Your task to perform on an android device: see sites visited before in the chrome app Image 0: 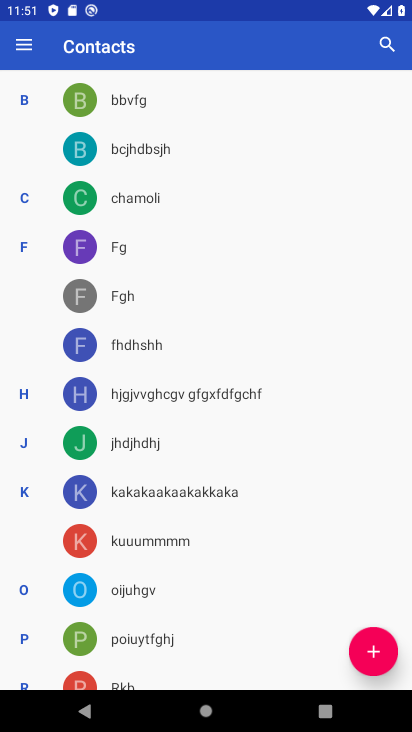
Step 0: press home button
Your task to perform on an android device: see sites visited before in the chrome app Image 1: 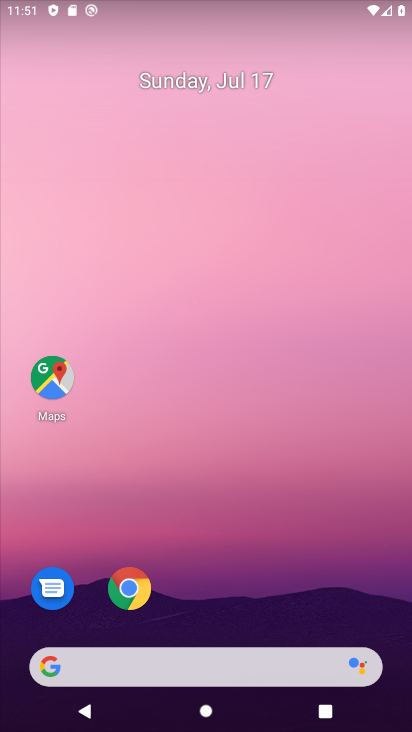
Step 1: drag from (229, 687) to (242, 132)
Your task to perform on an android device: see sites visited before in the chrome app Image 2: 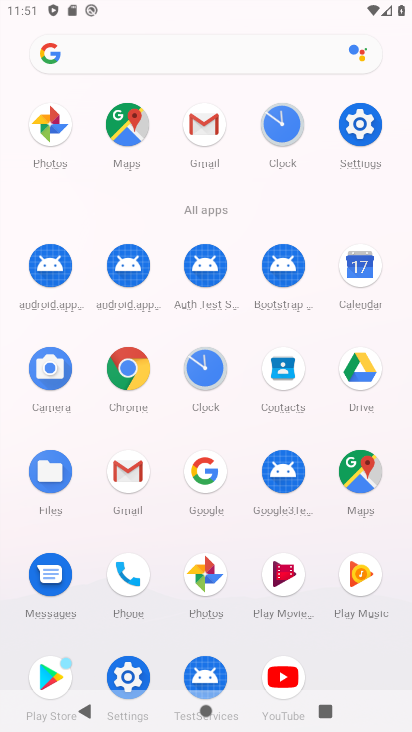
Step 2: click (120, 368)
Your task to perform on an android device: see sites visited before in the chrome app Image 3: 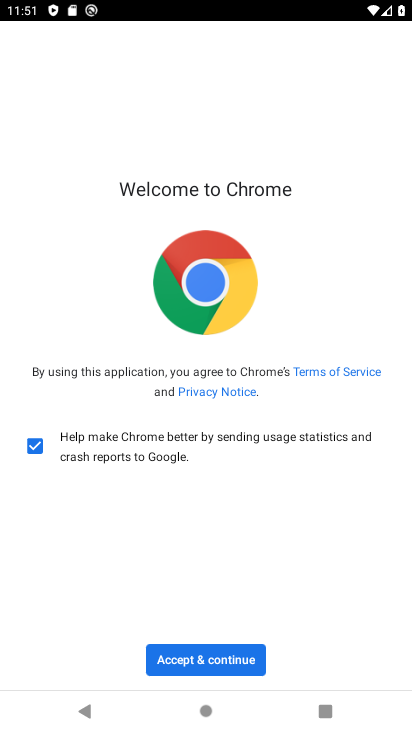
Step 3: click (224, 659)
Your task to perform on an android device: see sites visited before in the chrome app Image 4: 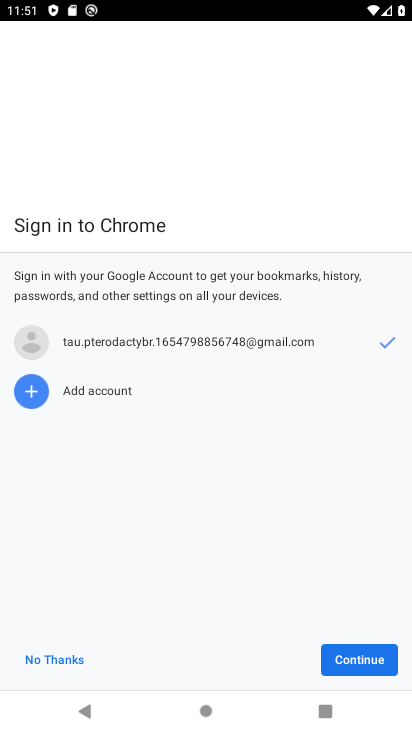
Step 4: click (347, 660)
Your task to perform on an android device: see sites visited before in the chrome app Image 5: 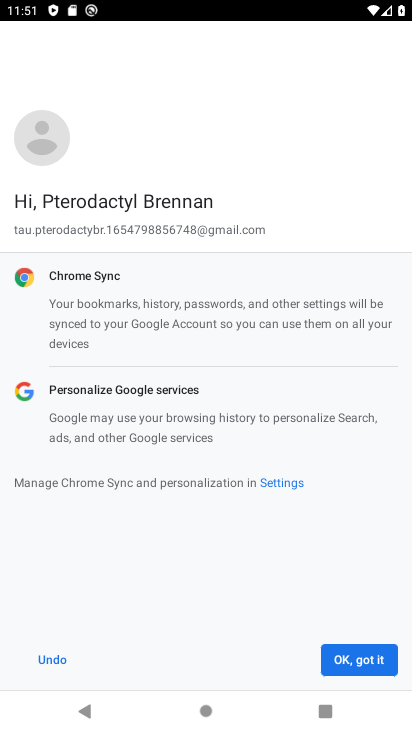
Step 5: click (347, 660)
Your task to perform on an android device: see sites visited before in the chrome app Image 6: 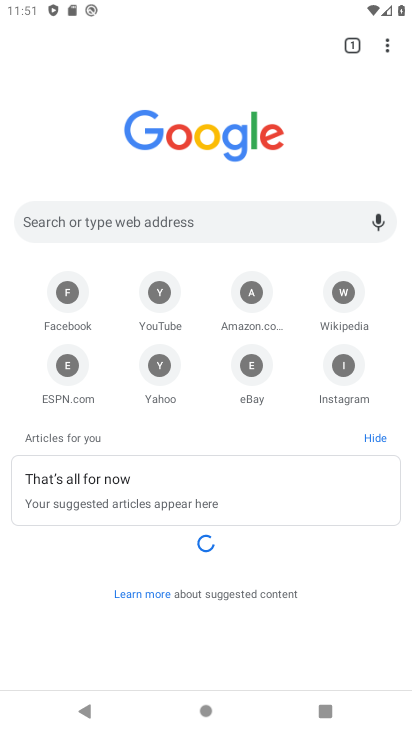
Step 6: click (389, 49)
Your task to perform on an android device: see sites visited before in the chrome app Image 7: 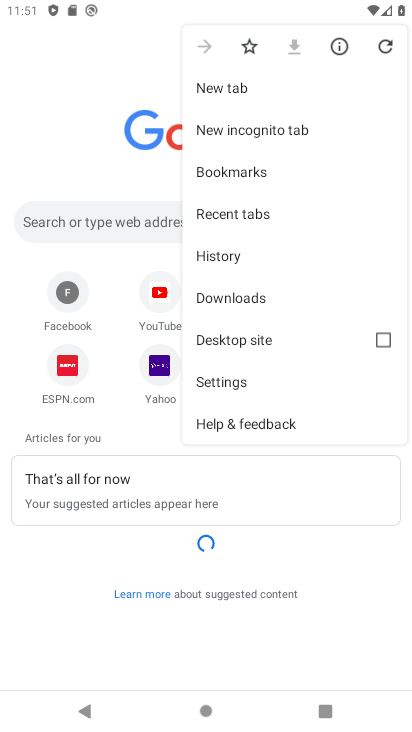
Step 7: click (214, 249)
Your task to perform on an android device: see sites visited before in the chrome app Image 8: 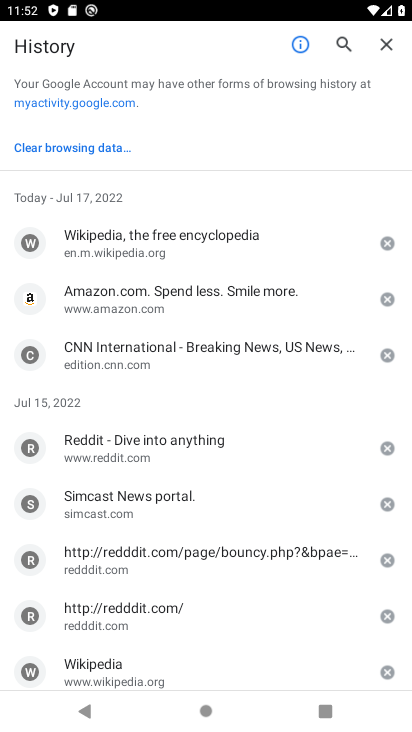
Step 8: task complete